Your task to perform on an android device: toggle translation in the chrome app Image 0: 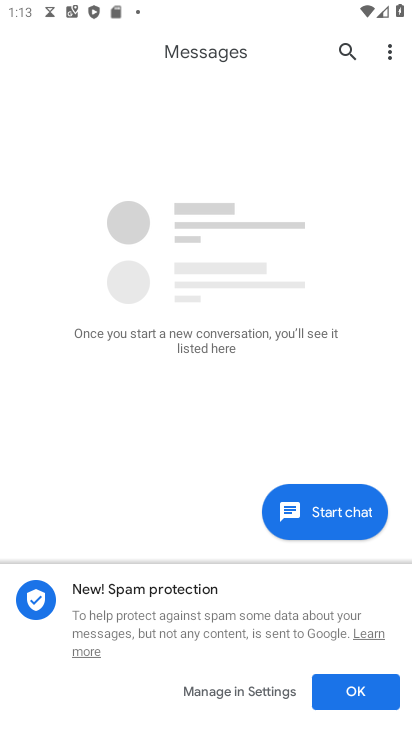
Step 0: click (347, 691)
Your task to perform on an android device: toggle translation in the chrome app Image 1: 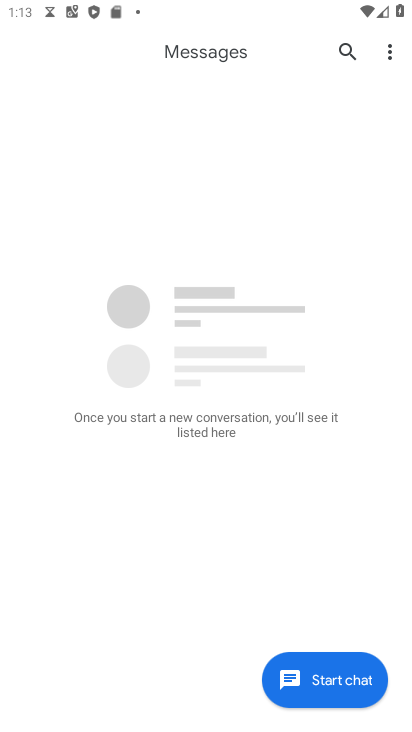
Step 1: press home button
Your task to perform on an android device: toggle translation in the chrome app Image 2: 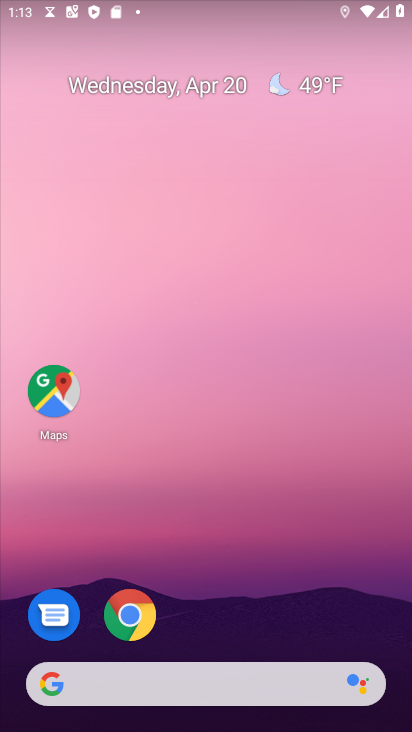
Step 2: click (123, 613)
Your task to perform on an android device: toggle translation in the chrome app Image 3: 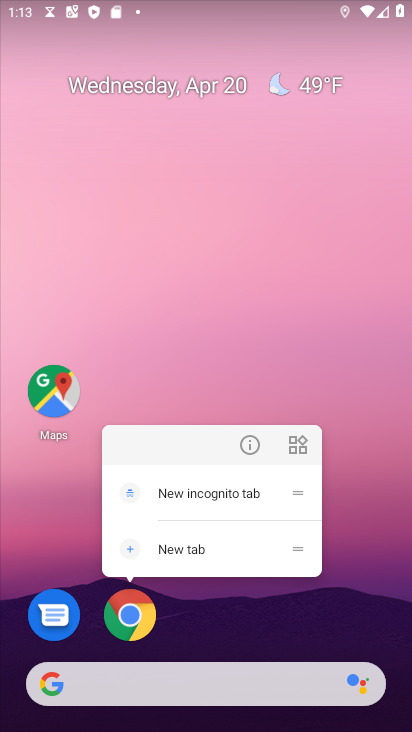
Step 3: click (123, 613)
Your task to perform on an android device: toggle translation in the chrome app Image 4: 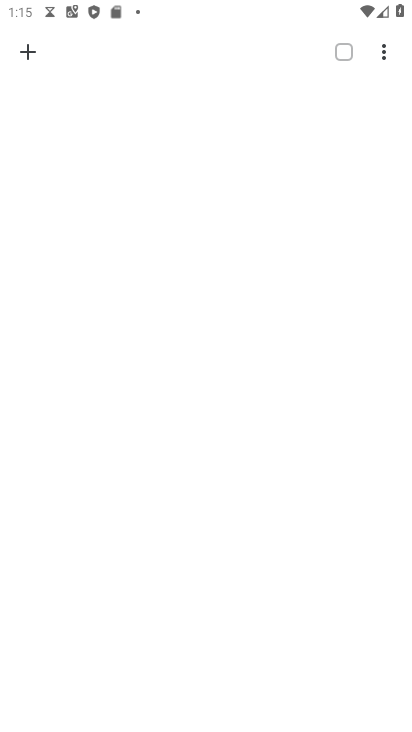
Step 4: click (292, 216)
Your task to perform on an android device: toggle translation in the chrome app Image 5: 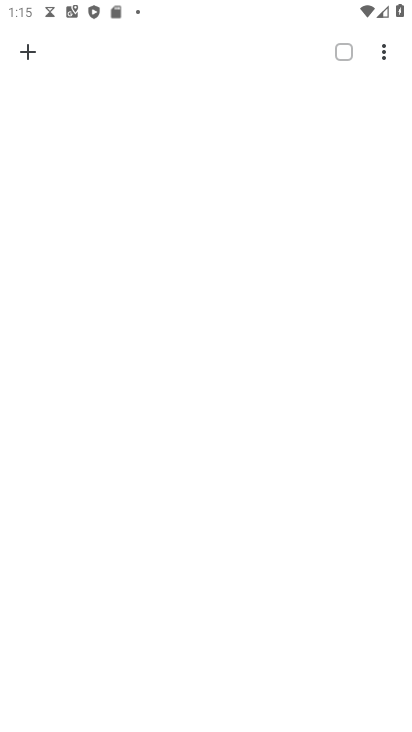
Step 5: click (383, 53)
Your task to perform on an android device: toggle translation in the chrome app Image 6: 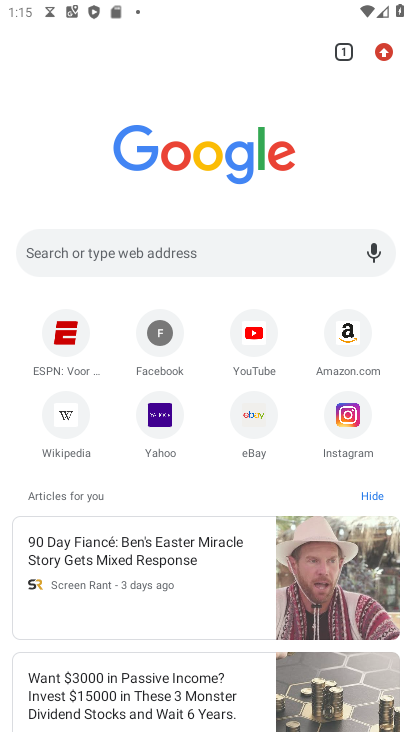
Step 6: click (384, 52)
Your task to perform on an android device: toggle translation in the chrome app Image 7: 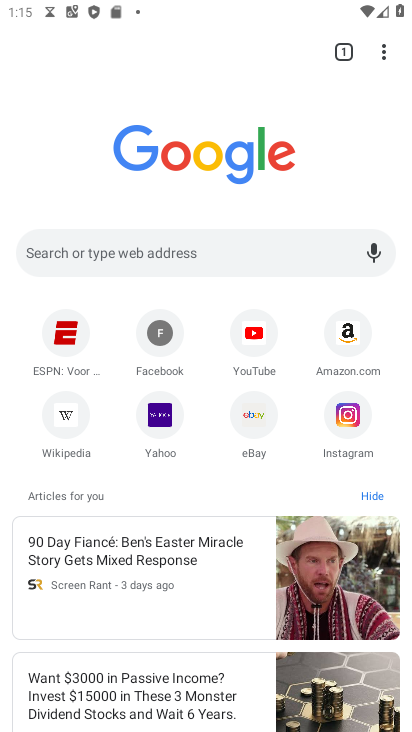
Step 7: click (384, 52)
Your task to perform on an android device: toggle translation in the chrome app Image 8: 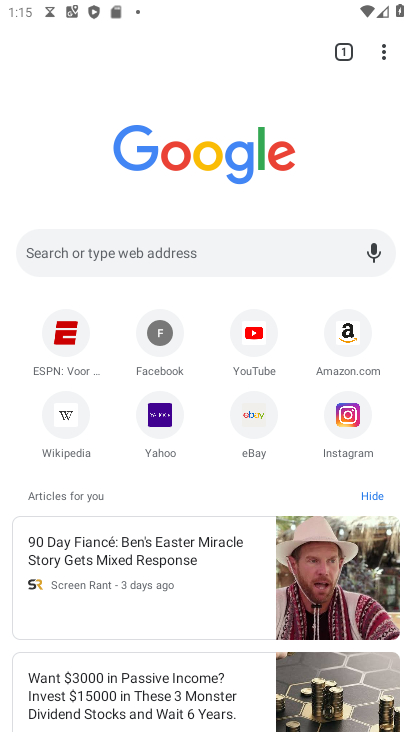
Step 8: click (388, 47)
Your task to perform on an android device: toggle translation in the chrome app Image 9: 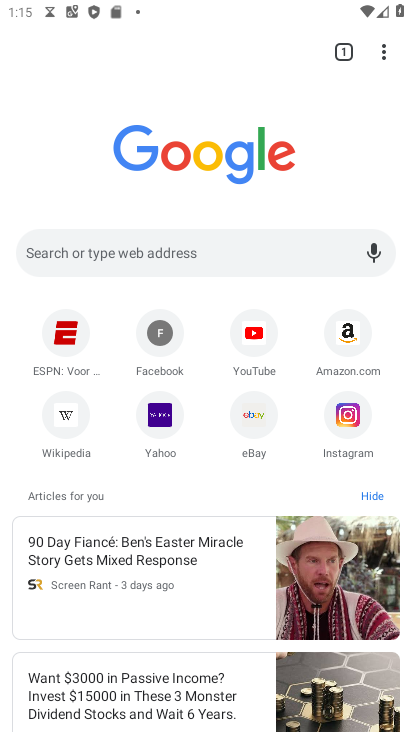
Step 9: click (389, 47)
Your task to perform on an android device: toggle translation in the chrome app Image 10: 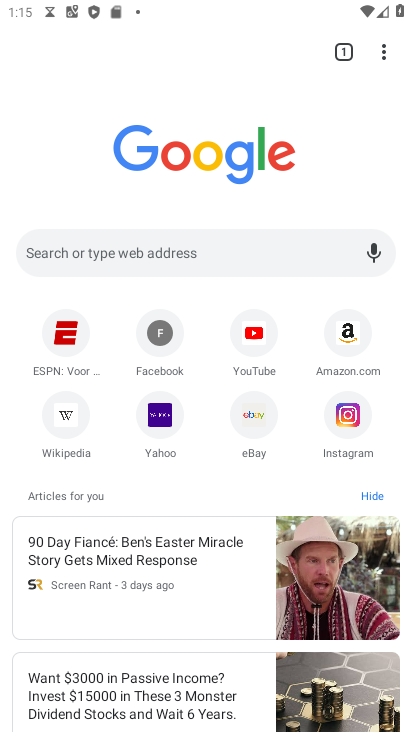
Step 10: click (382, 50)
Your task to perform on an android device: toggle translation in the chrome app Image 11: 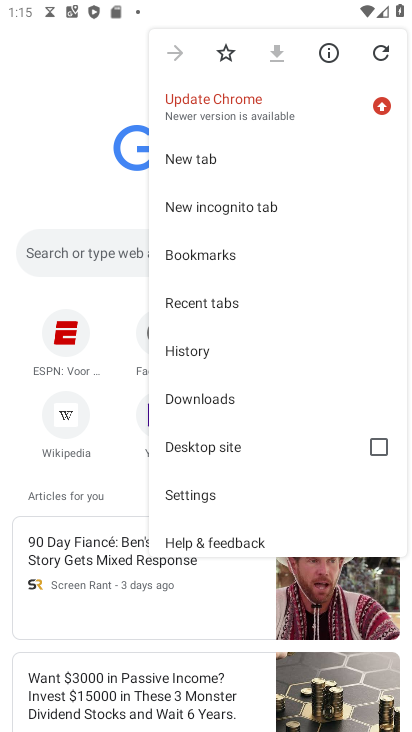
Step 11: click (206, 486)
Your task to perform on an android device: toggle translation in the chrome app Image 12: 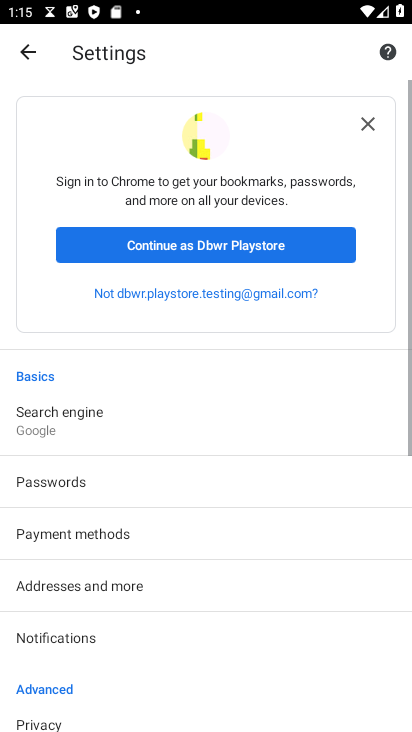
Step 12: drag from (164, 648) to (273, 320)
Your task to perform on an android device: toggle translation in the chrome app Image 13: 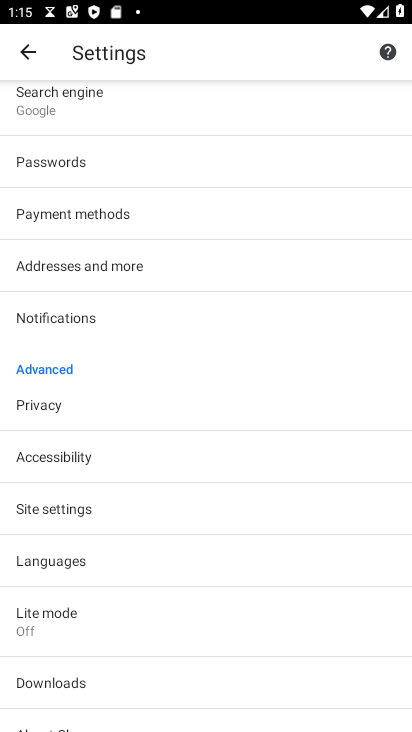
Step 13: drag from (198, 578) to (283, 345)
Your task to perform on an android device: toggle translation in the chrome app Image 14: 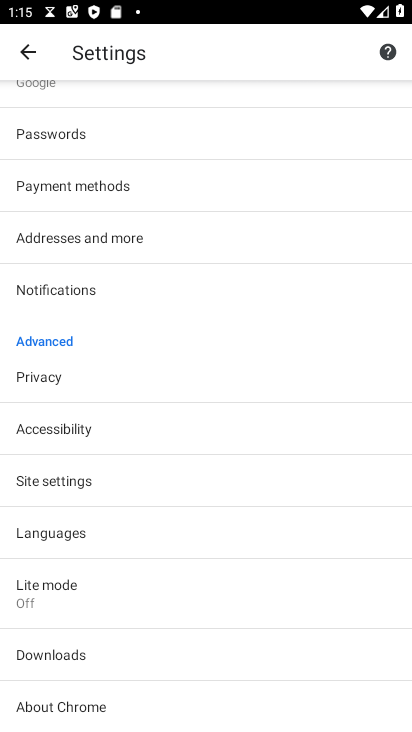
Step 14: click (67, 521)
Your task to perform on an android device: toggle translation in the chrome app Image 15: 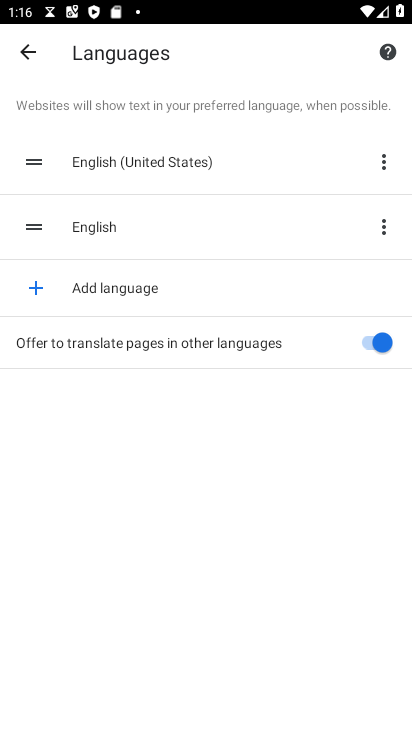
Step 15: click (383, 335)
Your task to perform on an android device: toggle translation in the chrome app Image 16: 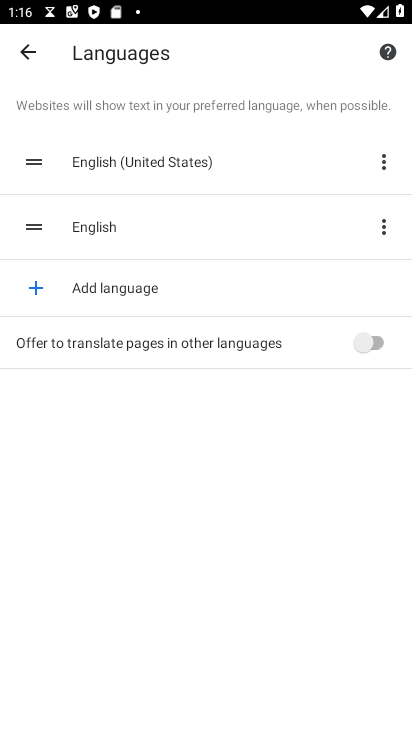
Step 16: task complete